Your task to perform on an android device: toggle javascript in the chrome app Image 0: 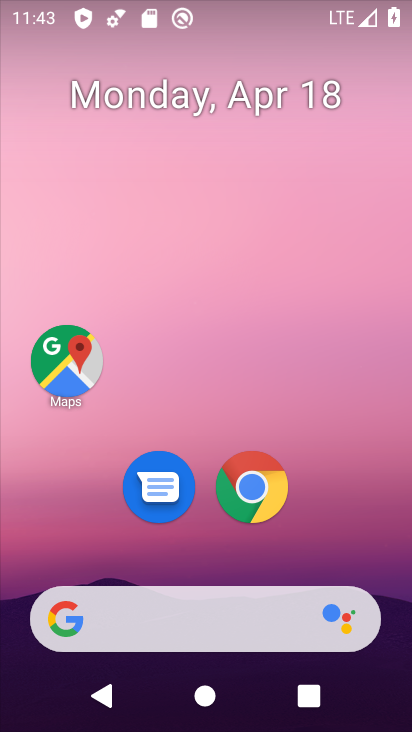
Step 0: click (250, 490)
Your task to perform on an android device: toggle javascript in the chrome app Image 1: 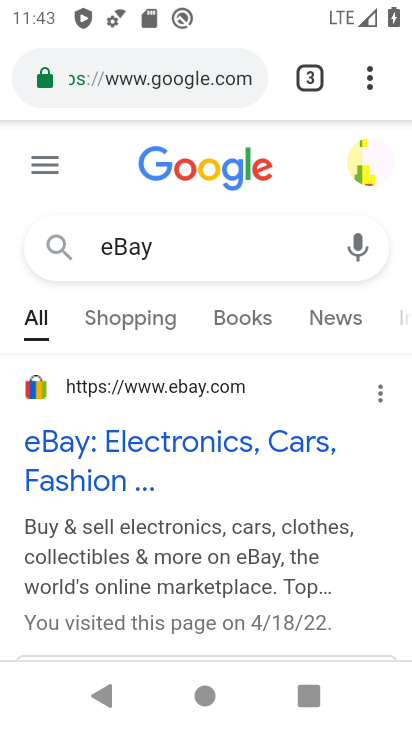
Step 1: click (366, 80)
Your task to perform on an android device: toggle javascript in the chrome app Image 2: 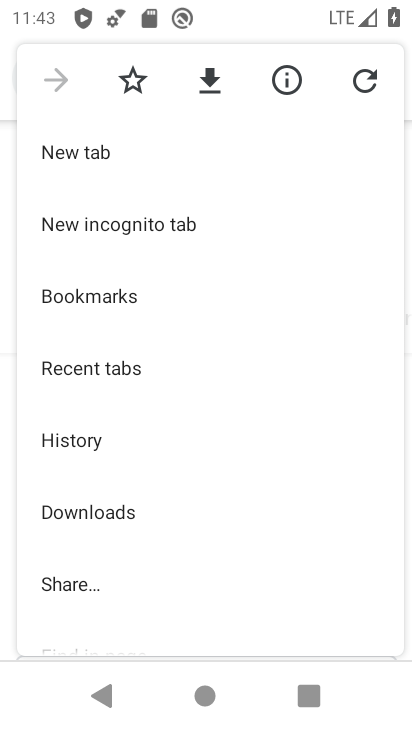
Step 2: drag from (251, 550) to (254, 154)
Your task to perform on an android device: toggle javascript in the chrome app Image 3: 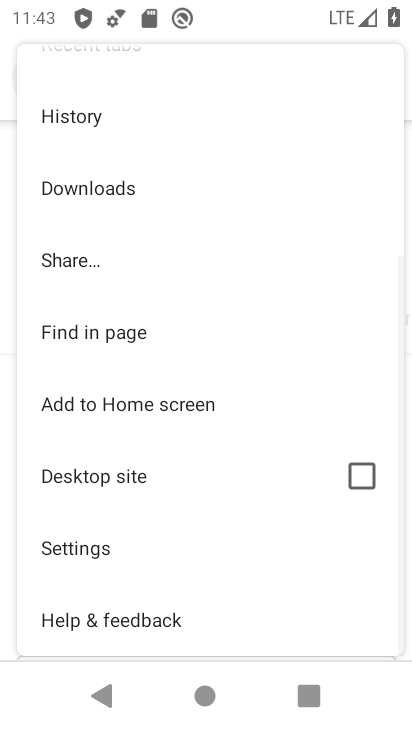
Step 3: click (92, 546)
Your task to perform on an android device: toggle javascript in the chrome app Image 4: 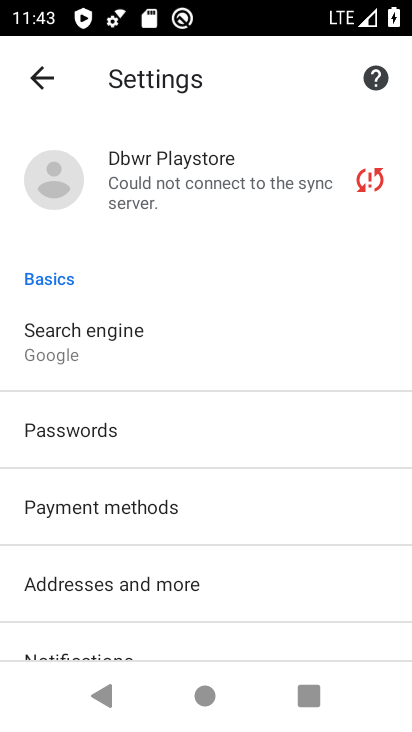
Step 4: drag from (217, 618) to (218, 233)
Your task to perform on an android device: toggle javascript in the chrome app Image 5: 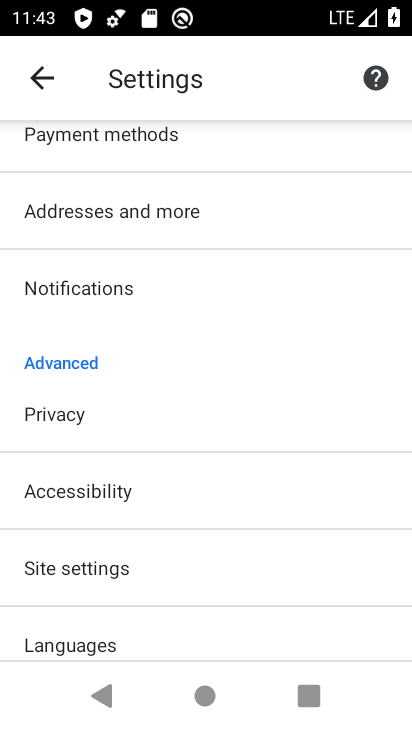
Step 5: click (98, 567)
Your task to perform on an android device: toggle javascript in the chrome app Image 6: 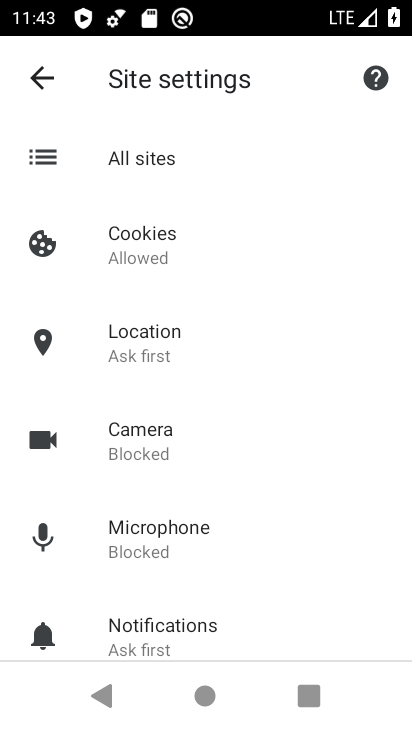
Step 6: drag from (232, 557) to (229, 271)
Your task to perform on an android device: toggle javascript in the chrome app Image 7: 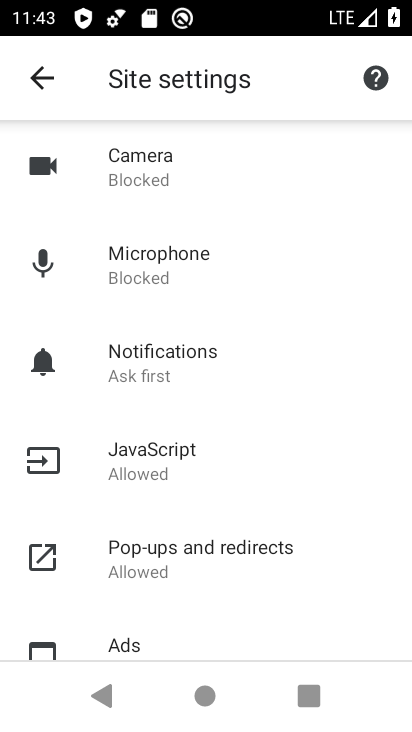
Step 7: click (164, 453)
Your task to perform on an android device: toggle javascript in the chrome app Image 8: 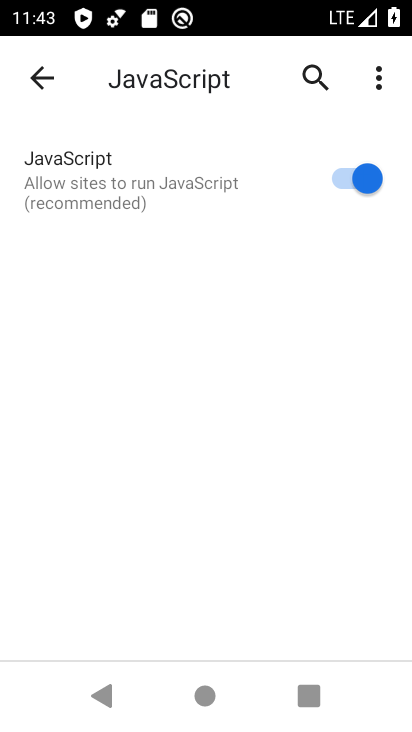
Step 8: click (351, 173)
Your task to perform on an android device: toggle javascript in the chrome app Image 9: 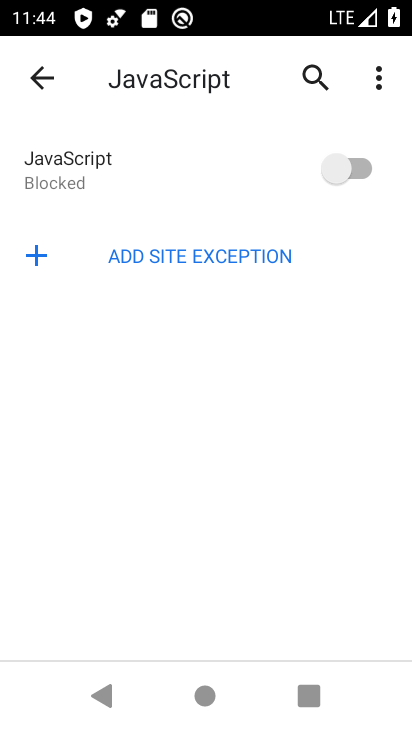
Step 9: task complete